Your task to perform on an android device: toggle improve location accuracy Image 0: 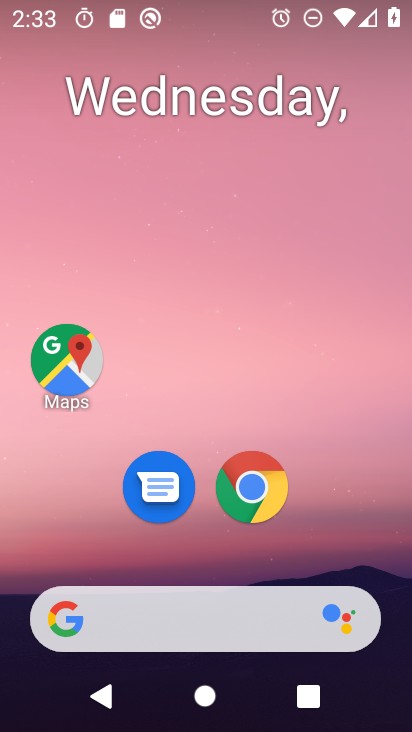
Step 0: drag from (231, 566) to (290, 30)
Your task to perform on an android device: toggle improve location accuracy Image 1: 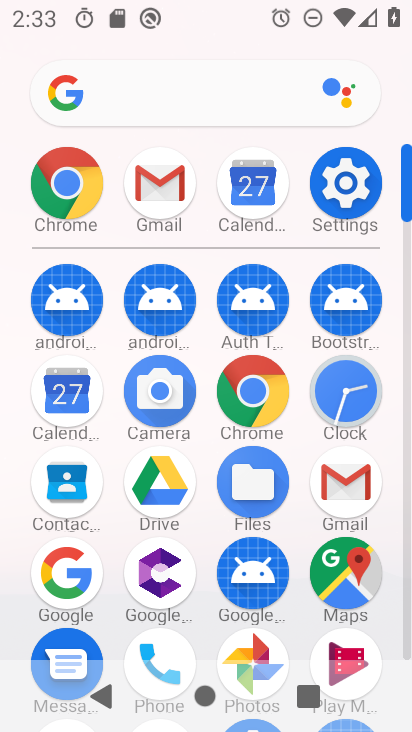
Step 1: click (360, 191)
Your task to perform on an android device: toggle improve location accuracy Image 2: 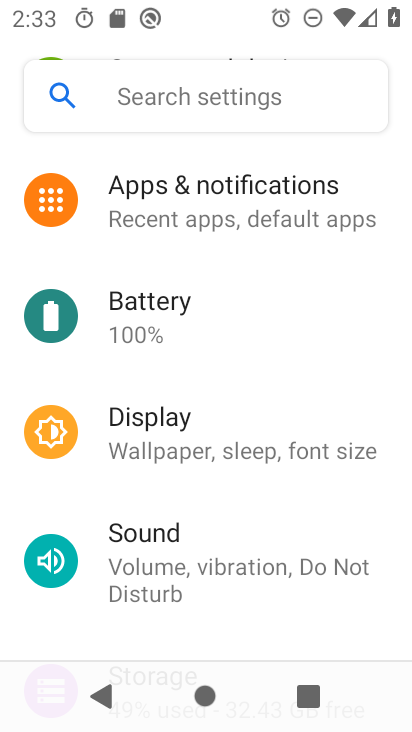
Step 2: drag from (237, 239) to (258, 268)
Your task to perform on an android device: toggle improve location accuracy Image 3: 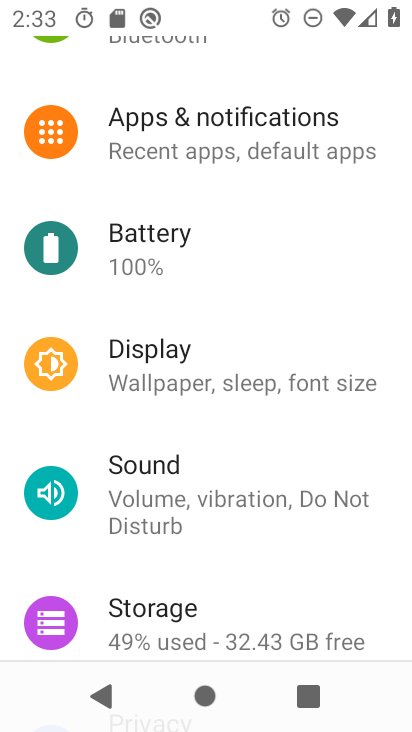
Step 3: drag from (148, 555) to (255, 107)
Your task to perform on an android device: toggle improve location accuracy Image 4: 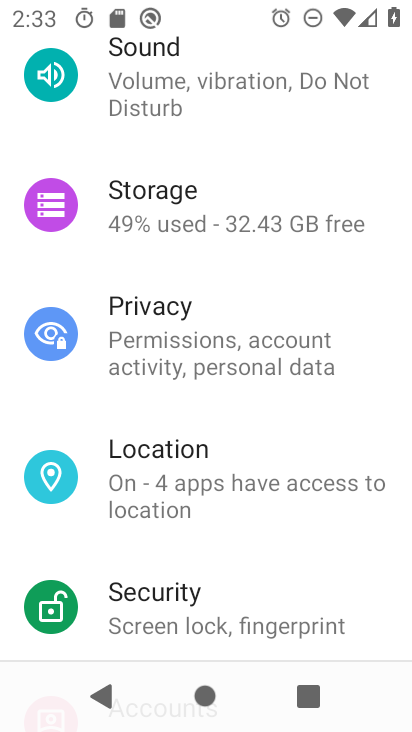
Step 4: click (147, 489)
Your task to perform on an android device: toggle improve location accuracy Image 5: 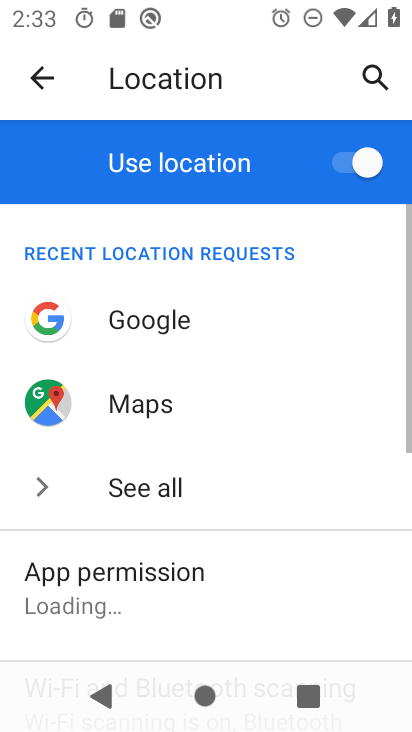
Step 5: drag from (168, 621) to (295, 42)
Your task to perform on an android device: toggle improve location accuracy Image 6: 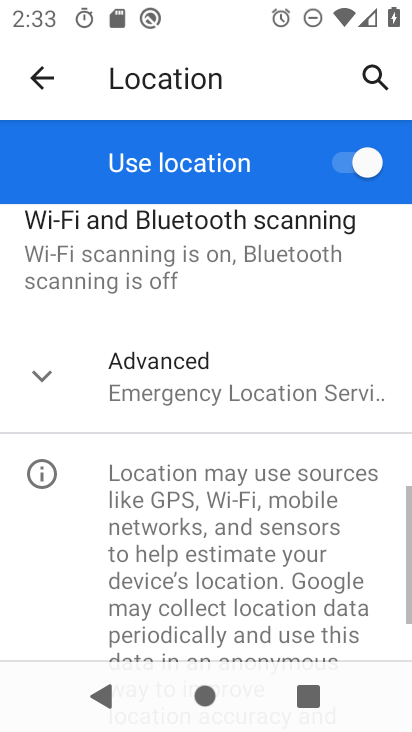
Step 6: click (156, 377)
Your task to perform on an android device: toggle improve location accuracy Image 7: 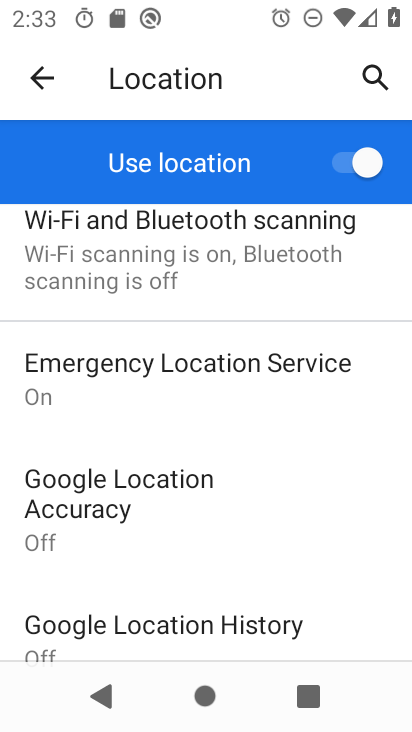
Step 7: click (126, 479)
Your task to perform on an android device: toggle improve location accuracy Image 8: 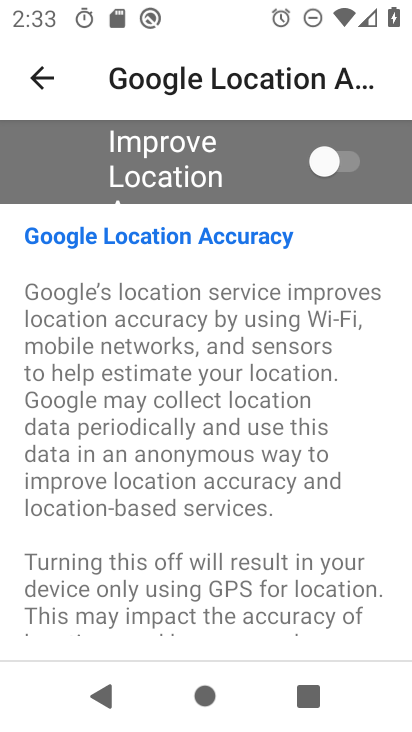
Step 8: click (323, 163)
Your task to perform on an android device: toggle improve location accuracy Image 9: 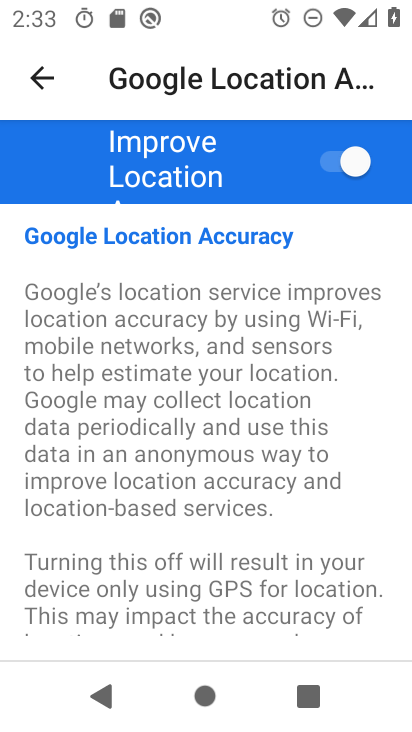
Step 9: task complete